Your task to perform on an android device: Open Yahoo.com Image 0: 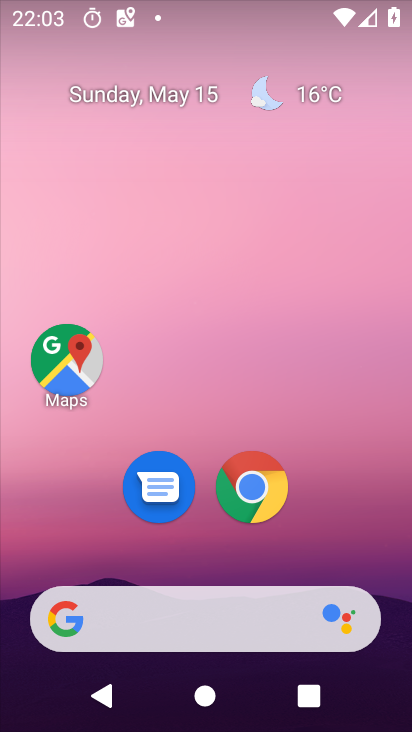
Step 0: click (265, 488)
Your task to perform on an android device: Open Yahoo.com Image 1: 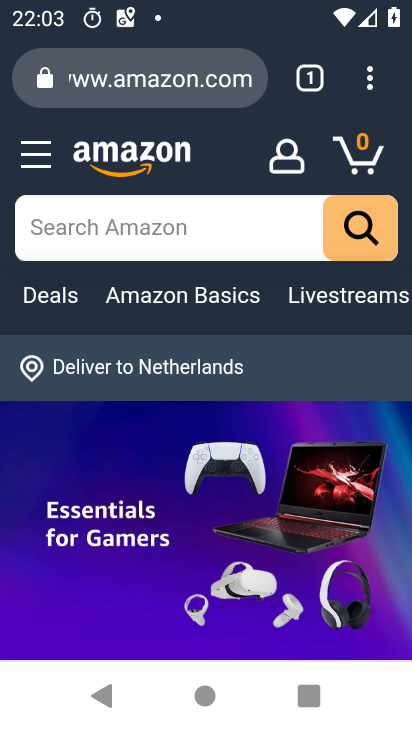
Step 1: click (252, 76)
Your task to perform on an android device: Open Yahoo.com Image 2: 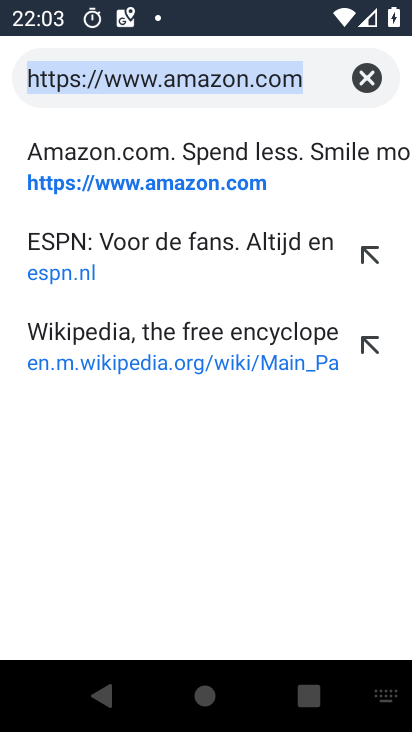
Step 2: click (350, 78)
Your task to perform on an android device: Open Yahoo.com Image 3: 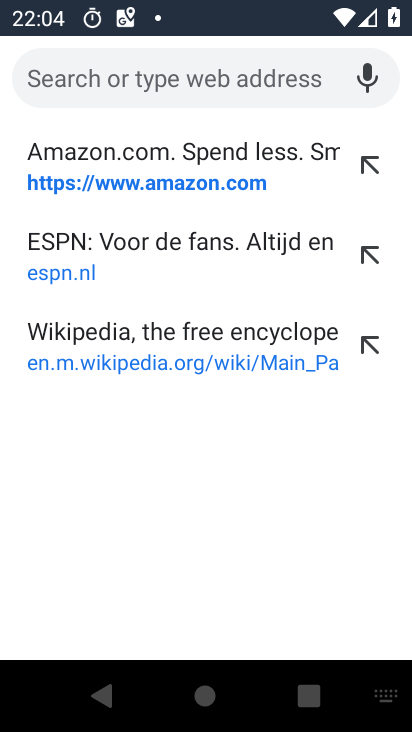
Step 3: type " Yahoo.com"
Your task to perform on an android device: Open Yahoo.com Image 4: 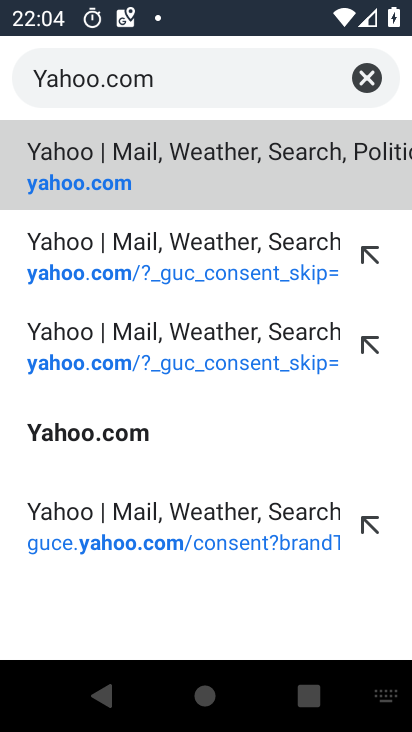
Step 4: click (72, 425)
Your task to perform on an android device: Open Yahoo.com Image 5: 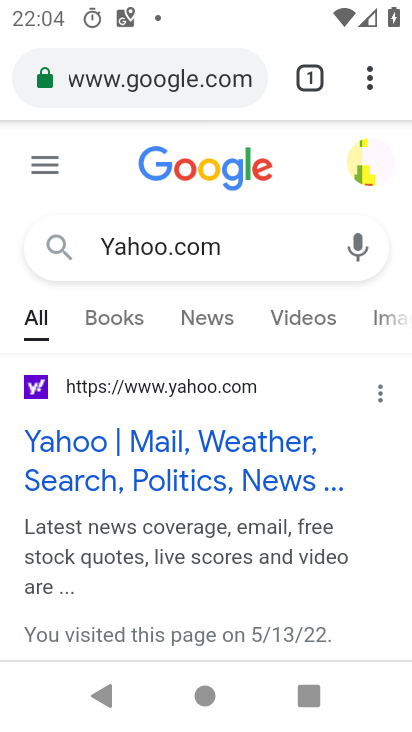
Step 5: task complete